Your task to perform on an android device: Open settings Image 0: 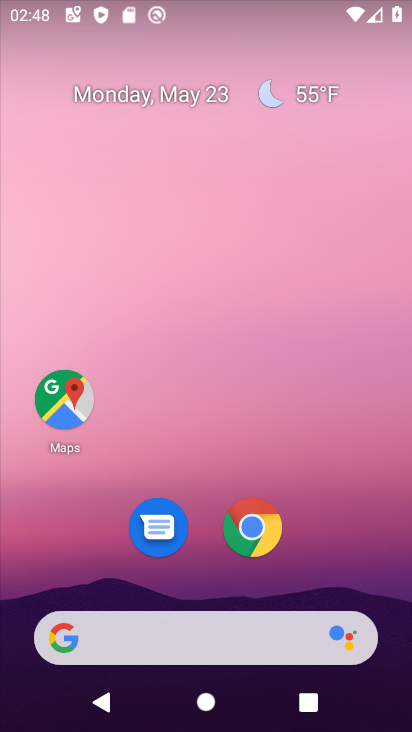
Step 0: drag from (292, 385) to (331, 514)
Your task to perform on an android device: Open settings Image 1: 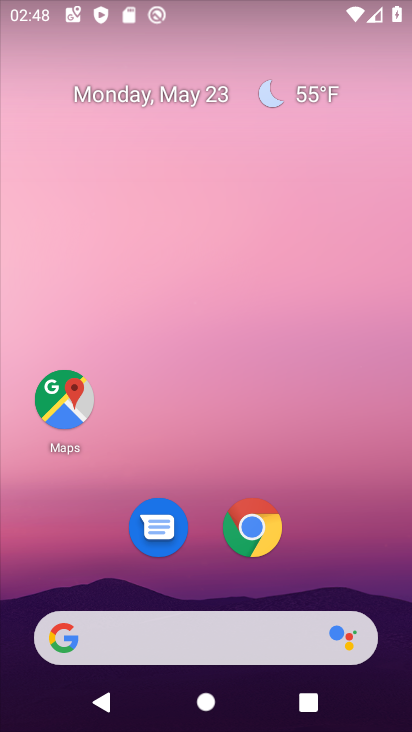
Step 1: drag from (323, 525) to (280, 0)
Your task to perform on an android device: Open settings Image 2: 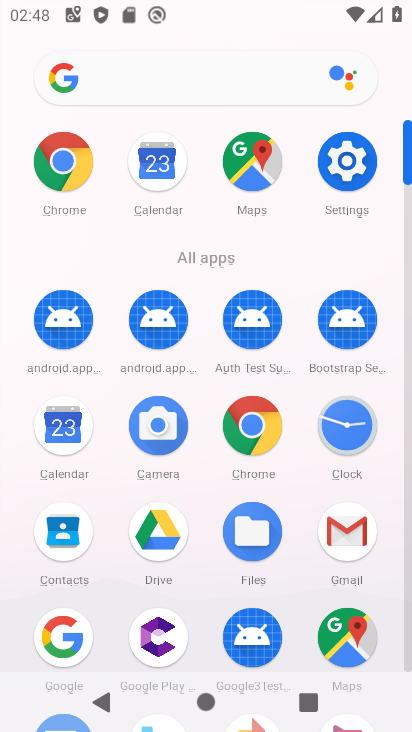
Step 2: drag from (15, 552) to (33, 176)
Your task to perform on an android device: Open settings Image 3: 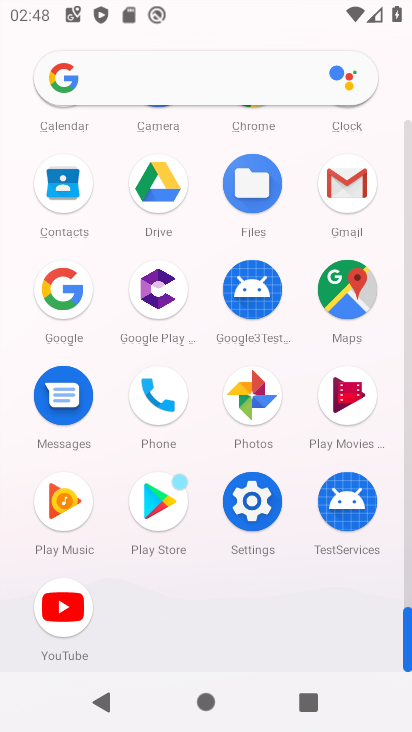
Step 3: click (251, 501)
Your task to perform on an android device: Open settings Image 4: 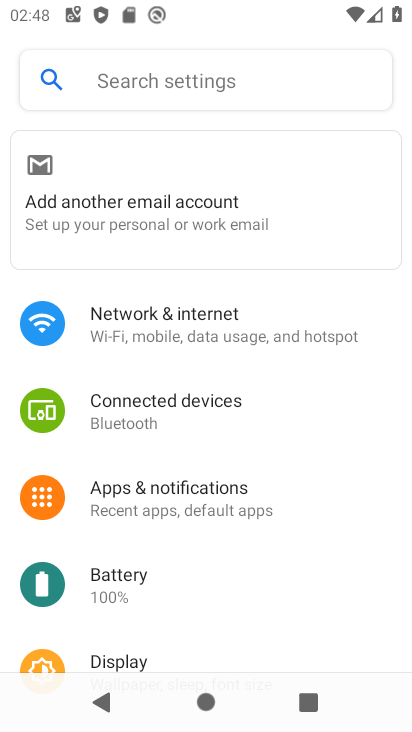
Step 4: task complete